Your task to perform on an android device: How big is the earth? Image 0: 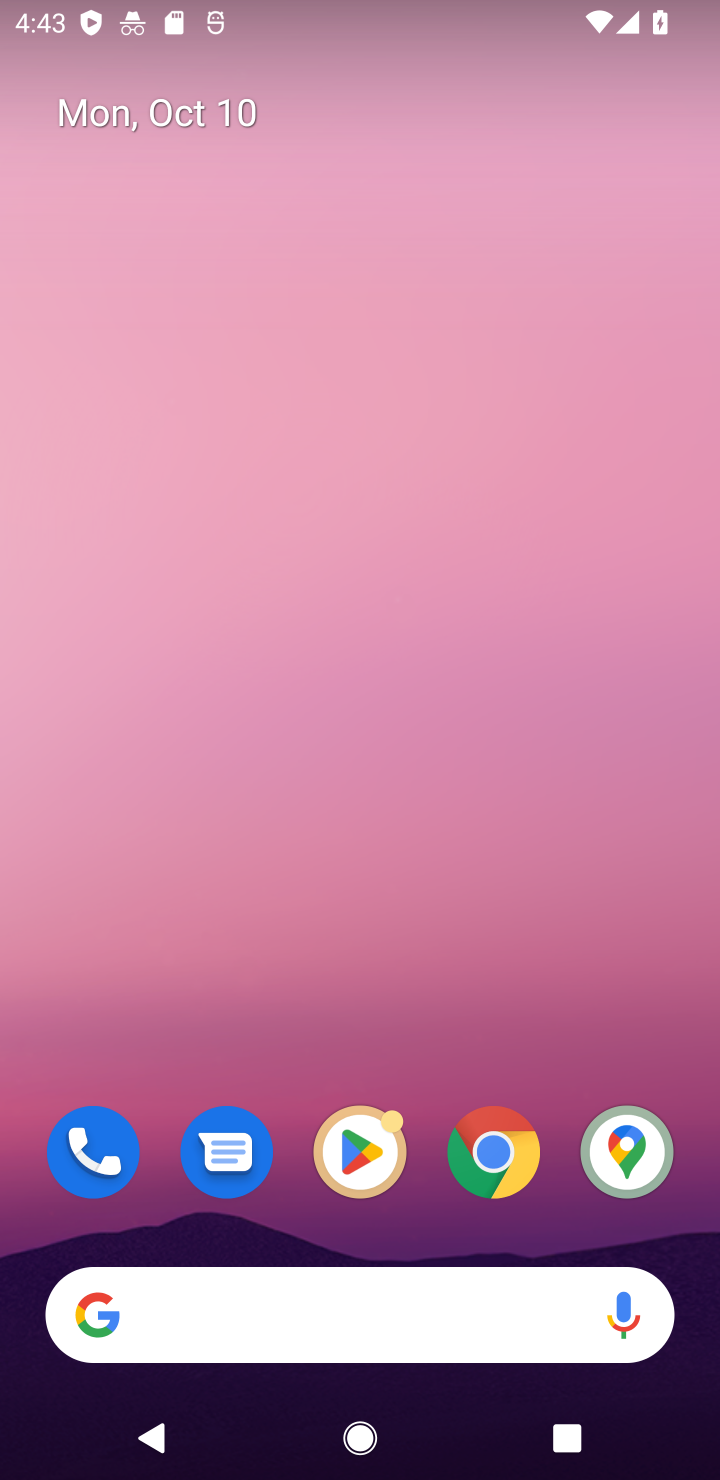
Step 0: click (489, 1154)
Your task to perform on an android device: How big is the earth? Image 1: 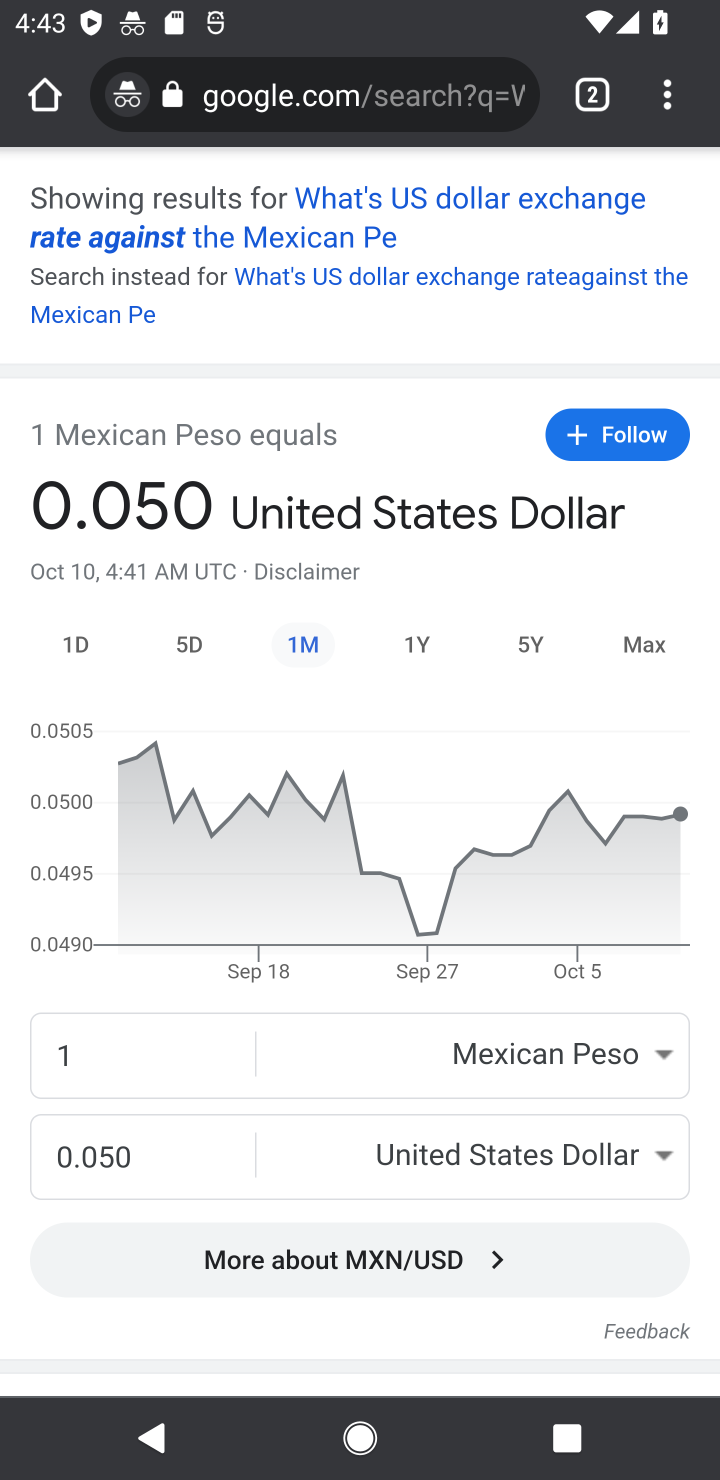
Step 1: click (399, 77)
Your task to perform on an android device: How big is the earth? Image 2: 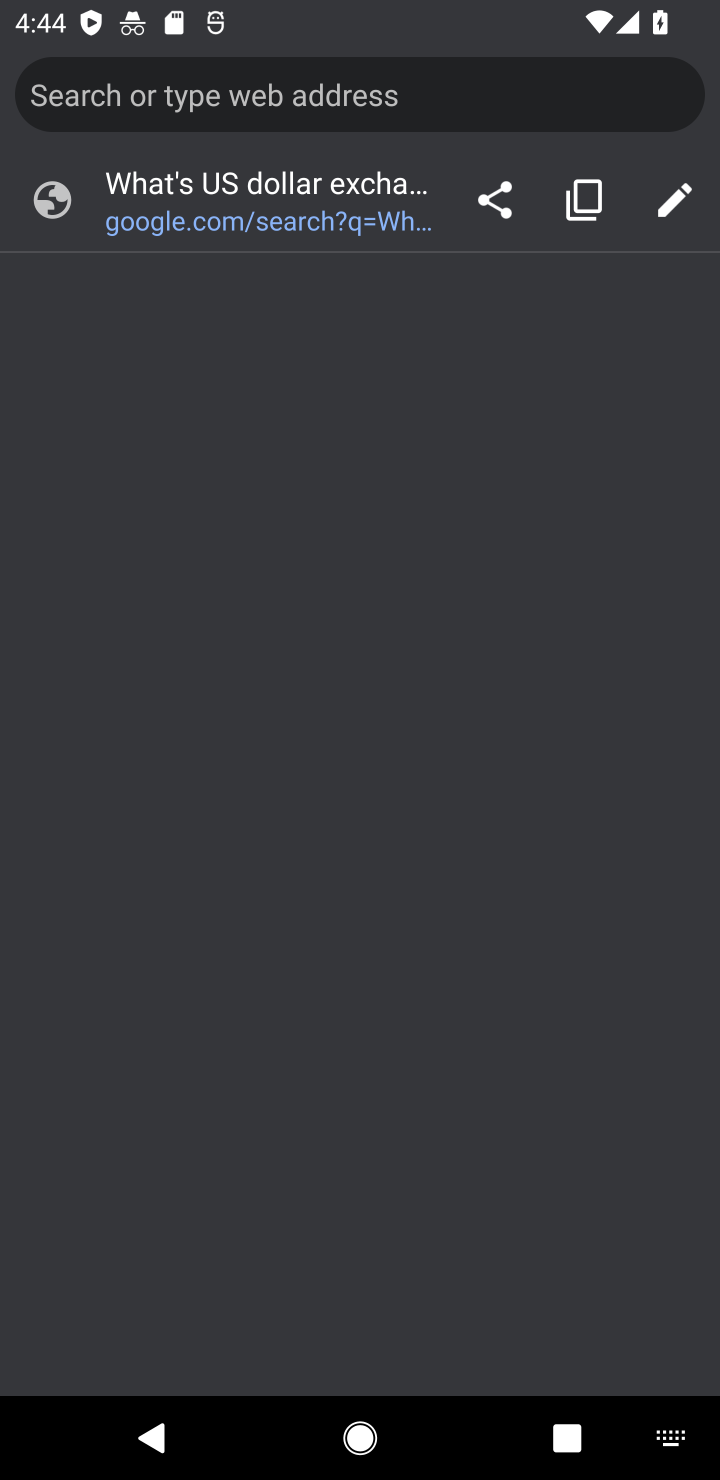
Step 2: type "How big is the earth"
Your task to perform on an android device: How big is the earth? Image 3: 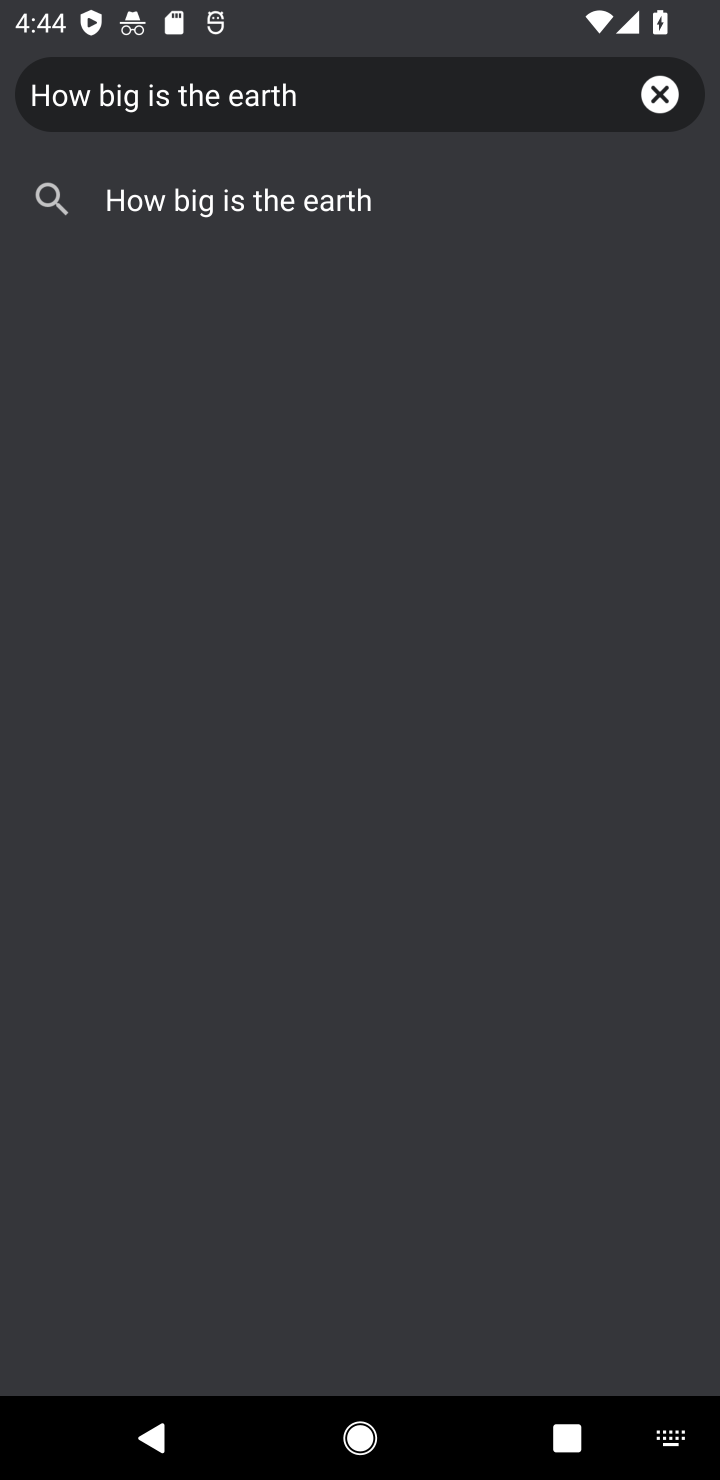
Step 3: click (357, 214)
Your task to perform on an android device: How big is the earth? Image 4: 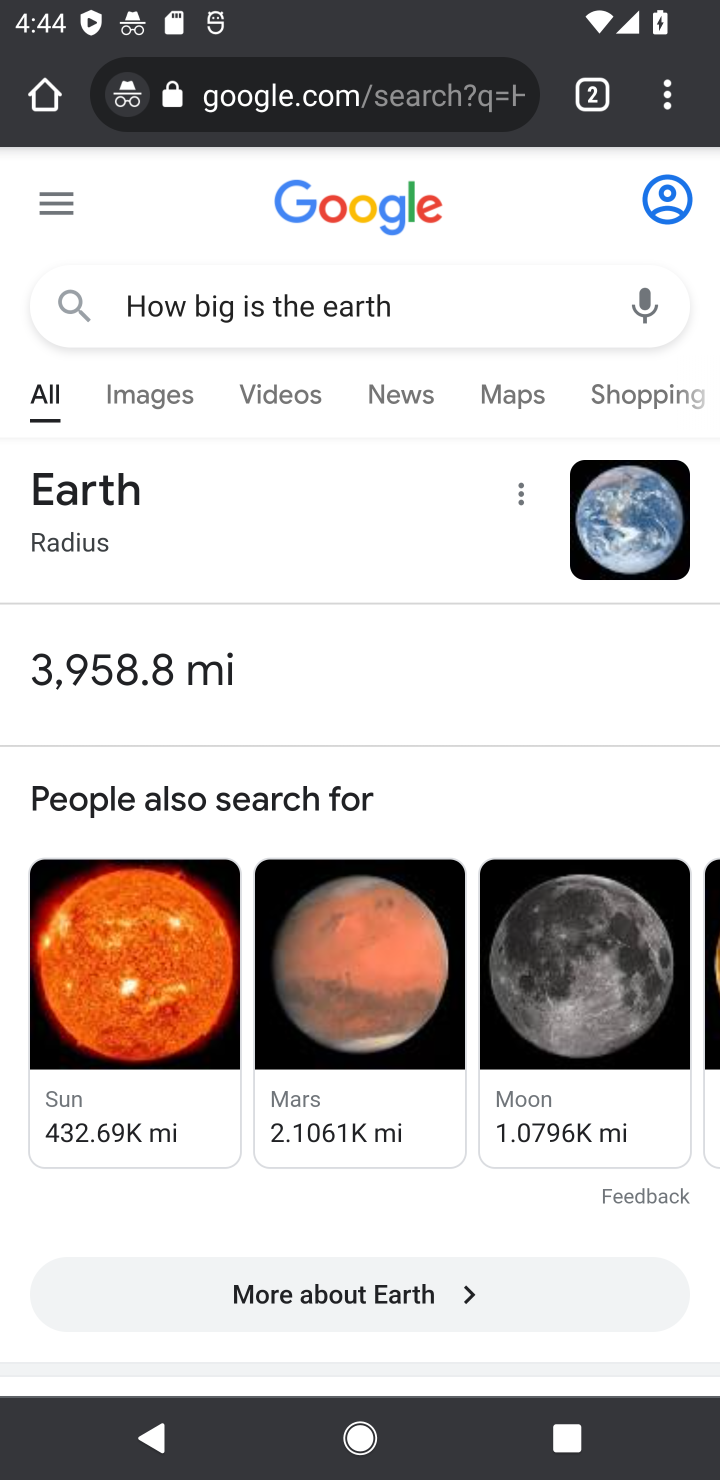
Step 4: task complete